Your task to perform on an android device: Open sound settings Image 0: 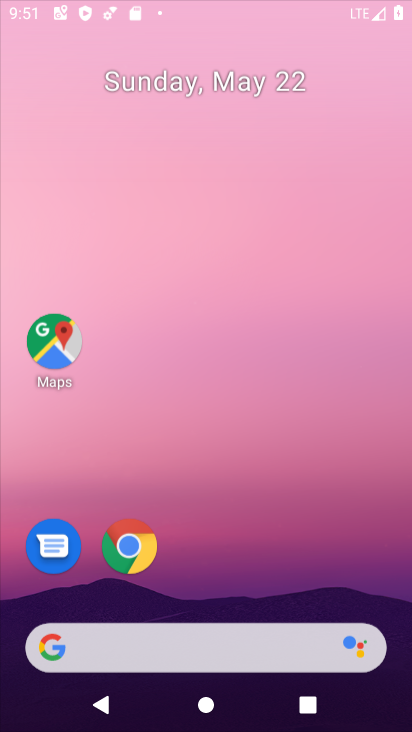
Step 0: click (208, 162)
Your task to perform on an android device: Open sound settings Image 1: 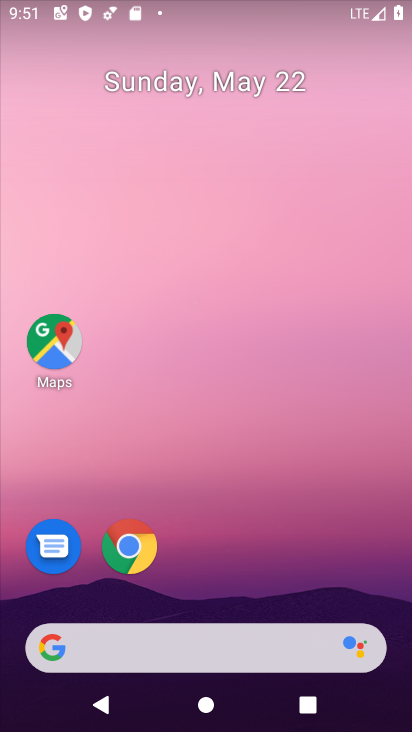
Step 1: drag from (181, 607) to (185, 96)
Your task to perform on an android device: Open sound settings Image 2: 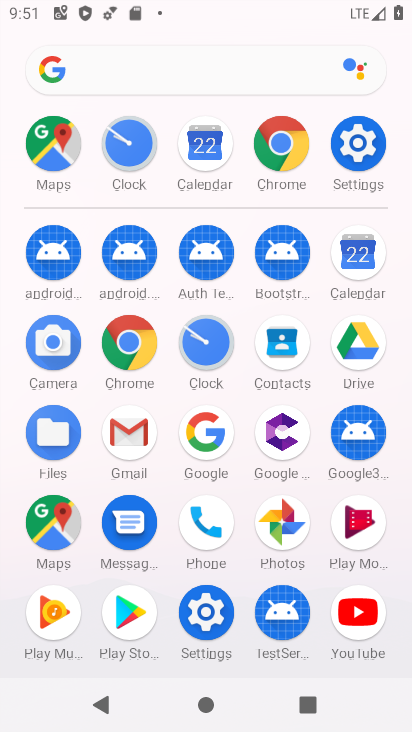
Step 2: click (352, 152)
Your task to perform on an android device: Open sound settings Image 3: 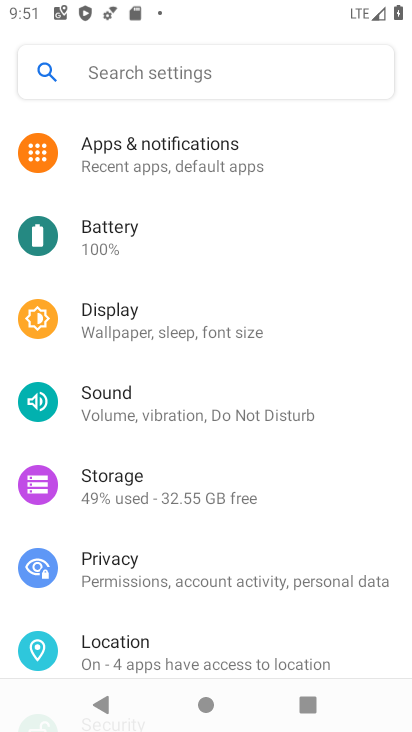
Step 3: click (135, 405)
Your task to perform on an android device: Open sound settings Image 4: 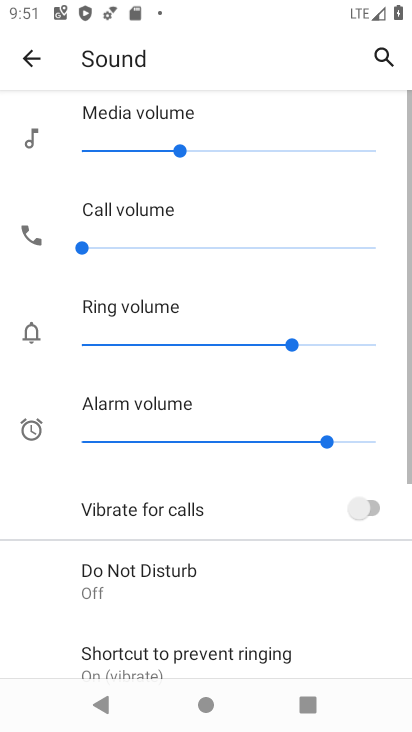
Step 4: task complete